Your task to perform on an android device: Open privacy settings Image 0: 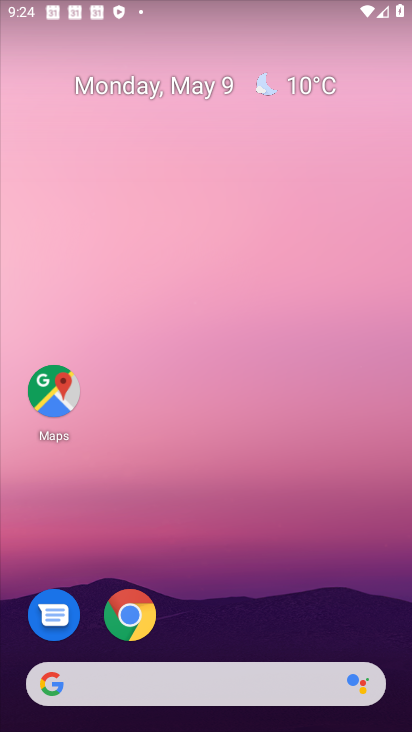
Step 0: drag from (212, 612) to (322, 98)
Your task to perform on an android device: Open privacy settings Image 1: 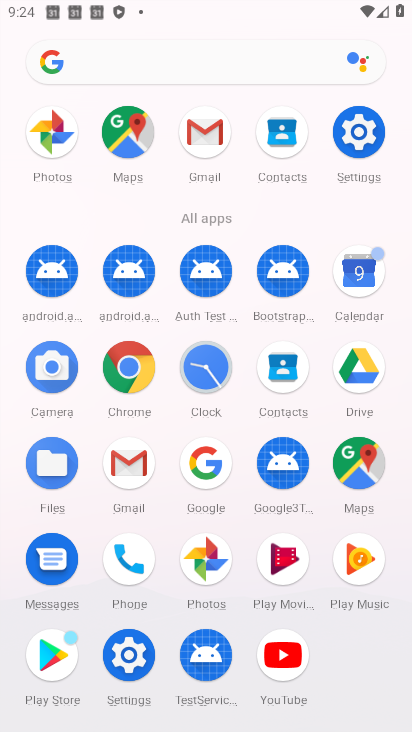
Step 1: click (365, 131)
Your task to perform on an android device: Open privacy settings Image 2: 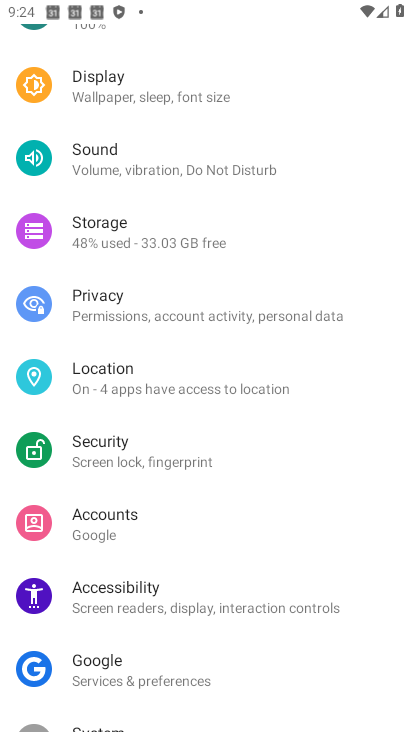
Step 2: click (158, 302)
Your task to perform on an android device: Open privacy settings Image 3: 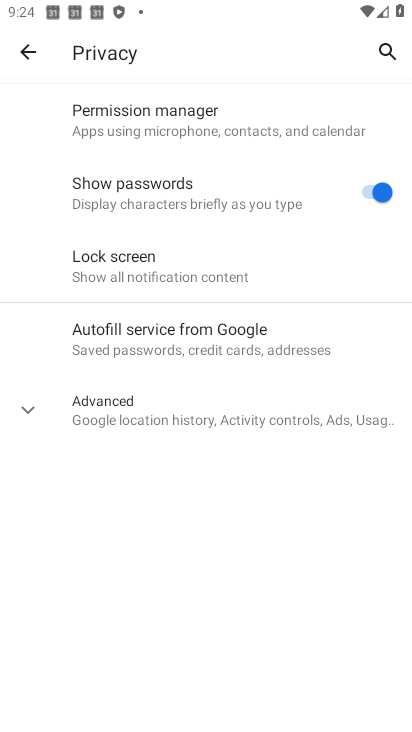
Step 3: task complete